Your task to perform on an android device: Go to Wikipedia Image 0: 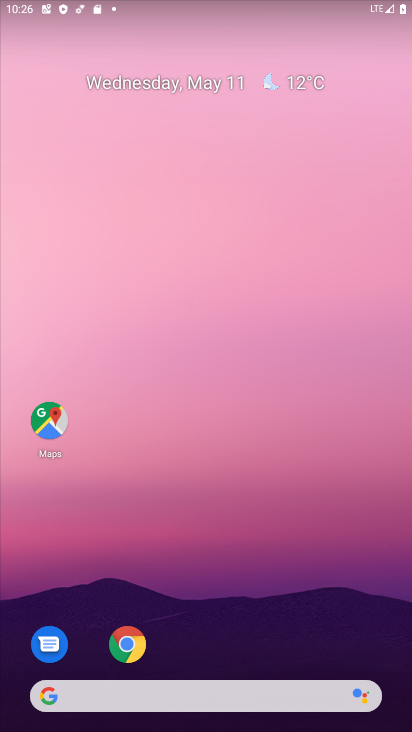
Step 0: drag from (222, 655) to (287, 170)
Your task to perform on an android device: Go to Wikipedia Image 1: 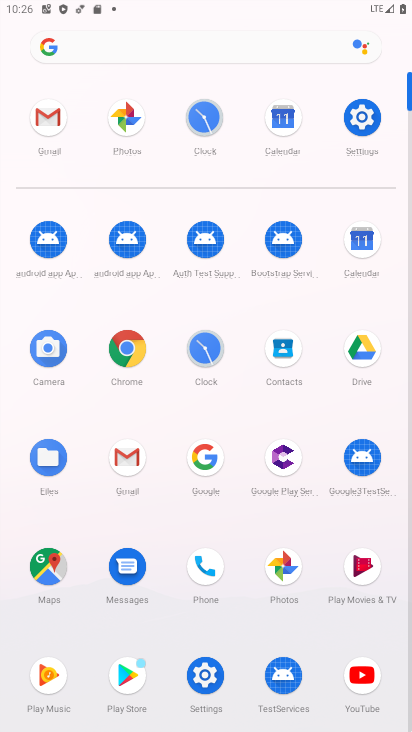
Step 1: click (340, 142)
Your task to perform on an android device: Go to Wikipedia Image 2: 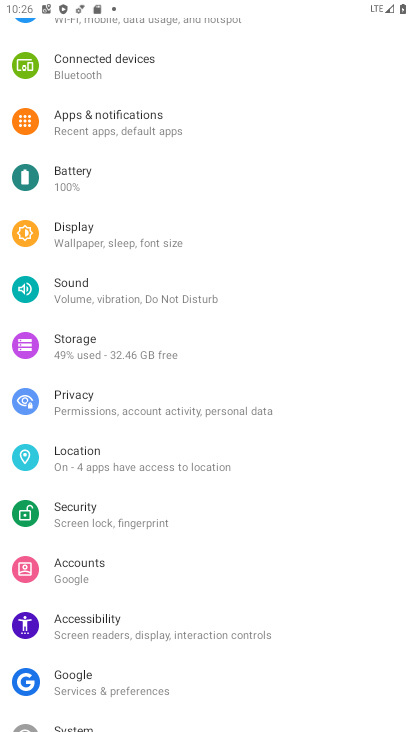
Step 2: press home button
Your task to perform on an android device: Go to Wikipedia Image 3: 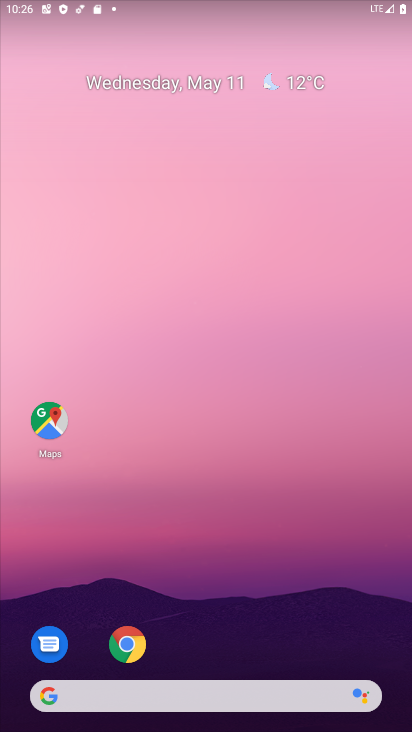
Step 3: drag from (252, 584) to (303, 91)
Your task to perform on an android device: Go to Wikipedia Image 4: 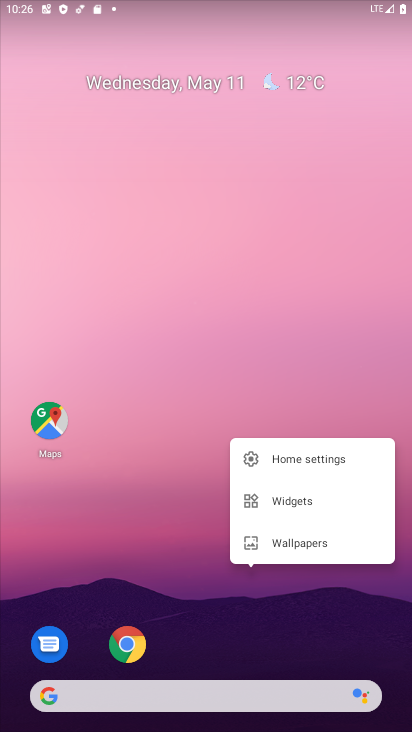
Step 4: click (138, 622)
Your task to perform on an android device: Go to Wikipedia Image 5: 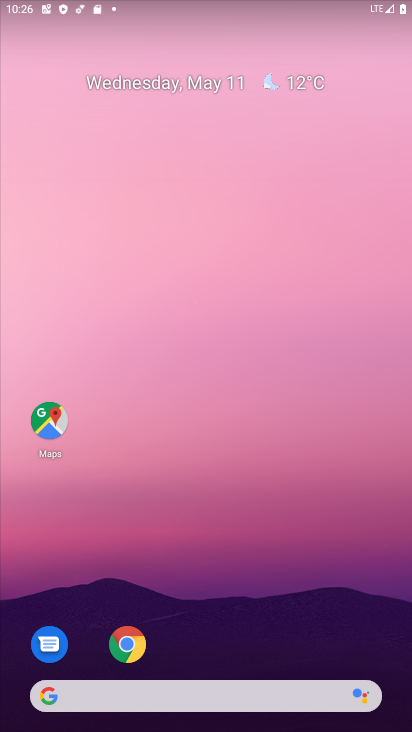
Step 5: click (131, 634)
Your task to perform on an android device: Go to Wikipedia Image 6: 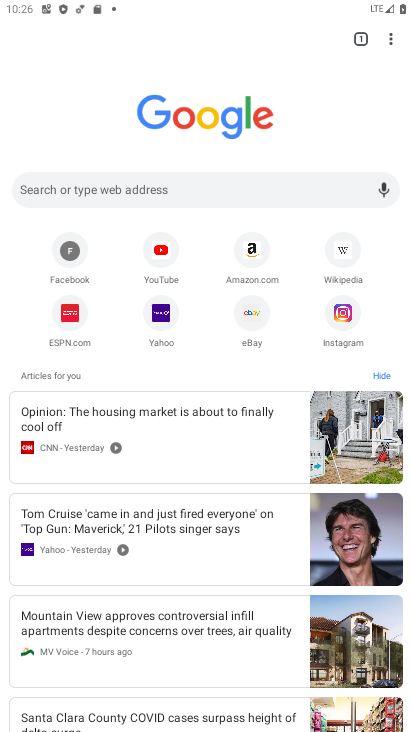
Step 6: click (349, 264)
Your task to perform on an android device: Go to Wikipedia Image 7: 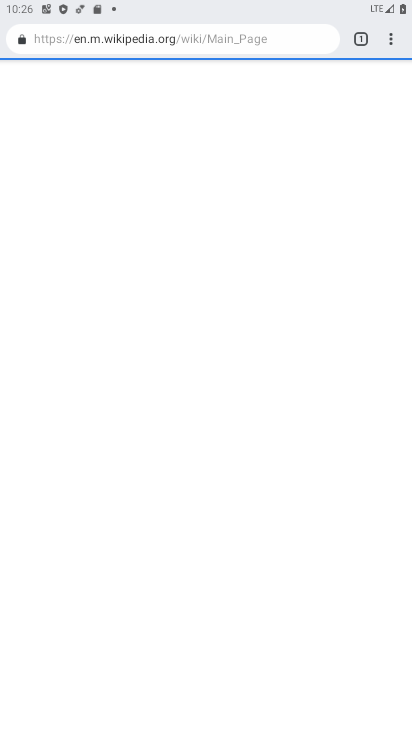
Step 7: task complete